Your task to perform on an android device: see tabs open on other devices in the chrome app Image 0: 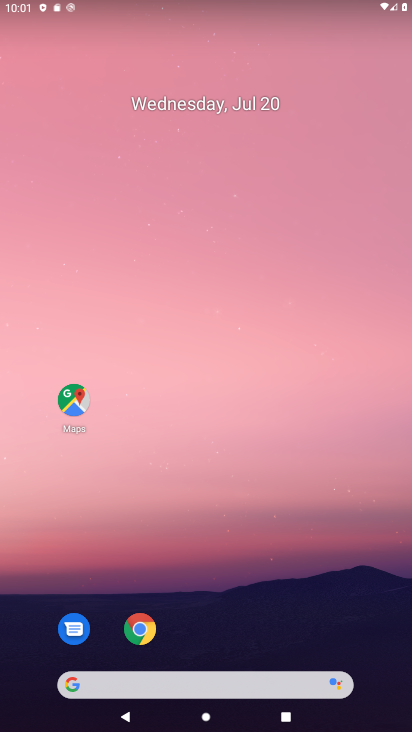
Step 0: drag from (275, 576) to (272, 67)
Your task to perform on an android device: see tabs open on other devices in the chrome app Image 1: 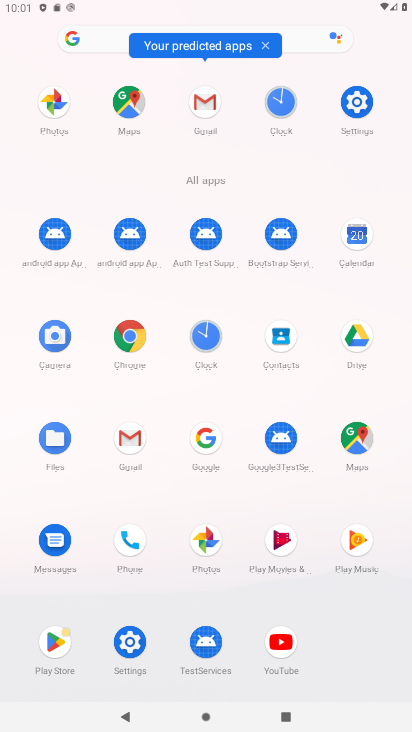
Step 1: click (126, 338)
Your task to perform on an android device: see tabs open on other devices in the chrome app Image 2: 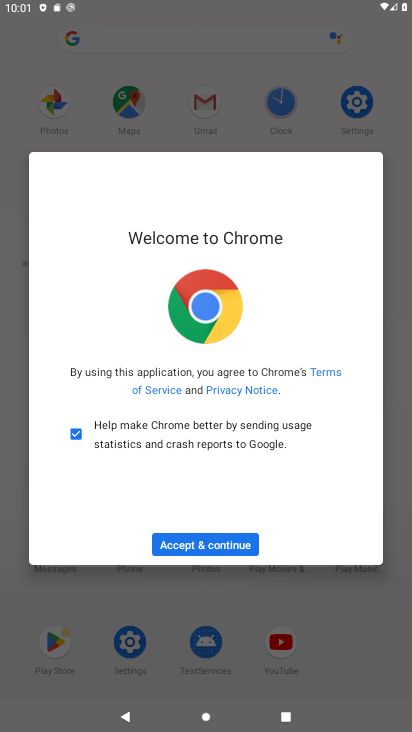
Step 2: click (206, 534)
Your task to perform on an android device: see tabs open on other devices in the chrome app Image 3: 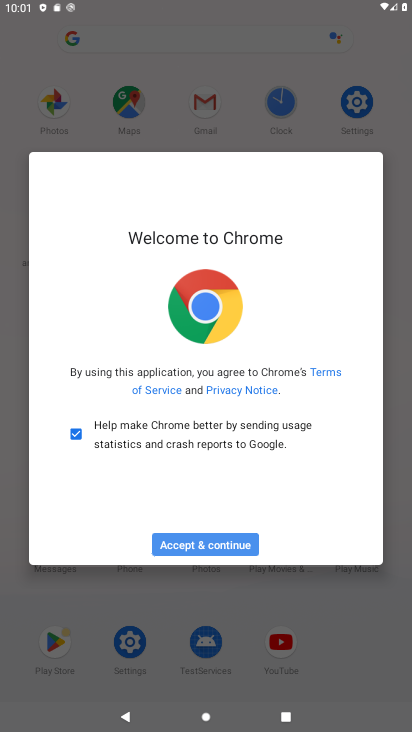
Step 3: click (191, 551)
Your task to perform on an android device: see tabs open on other devices in the chrome app Image 4: 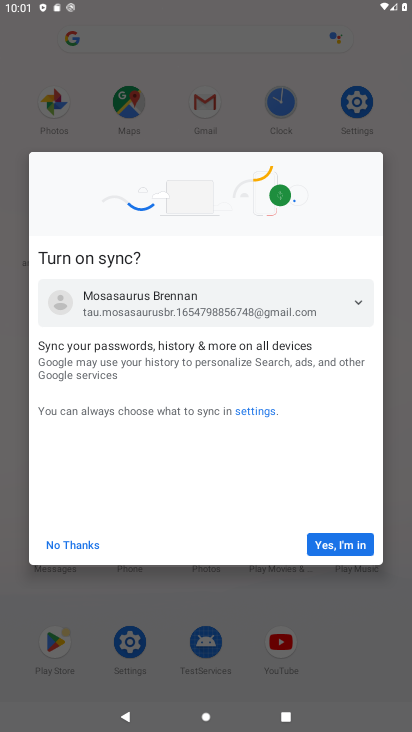
Step 4: click (341, 549)
Your task to perform on an android device: see tabs open on other devices in the chrome app Image 5: 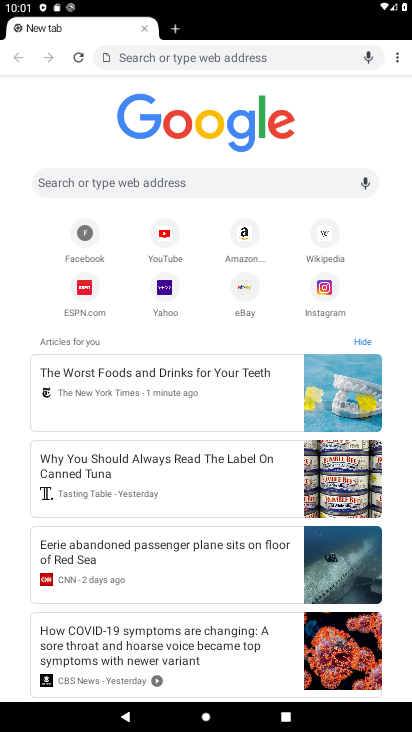
Step 5: task complete